Your task to perform on an android device: turn on improve location accuracy Image 0: 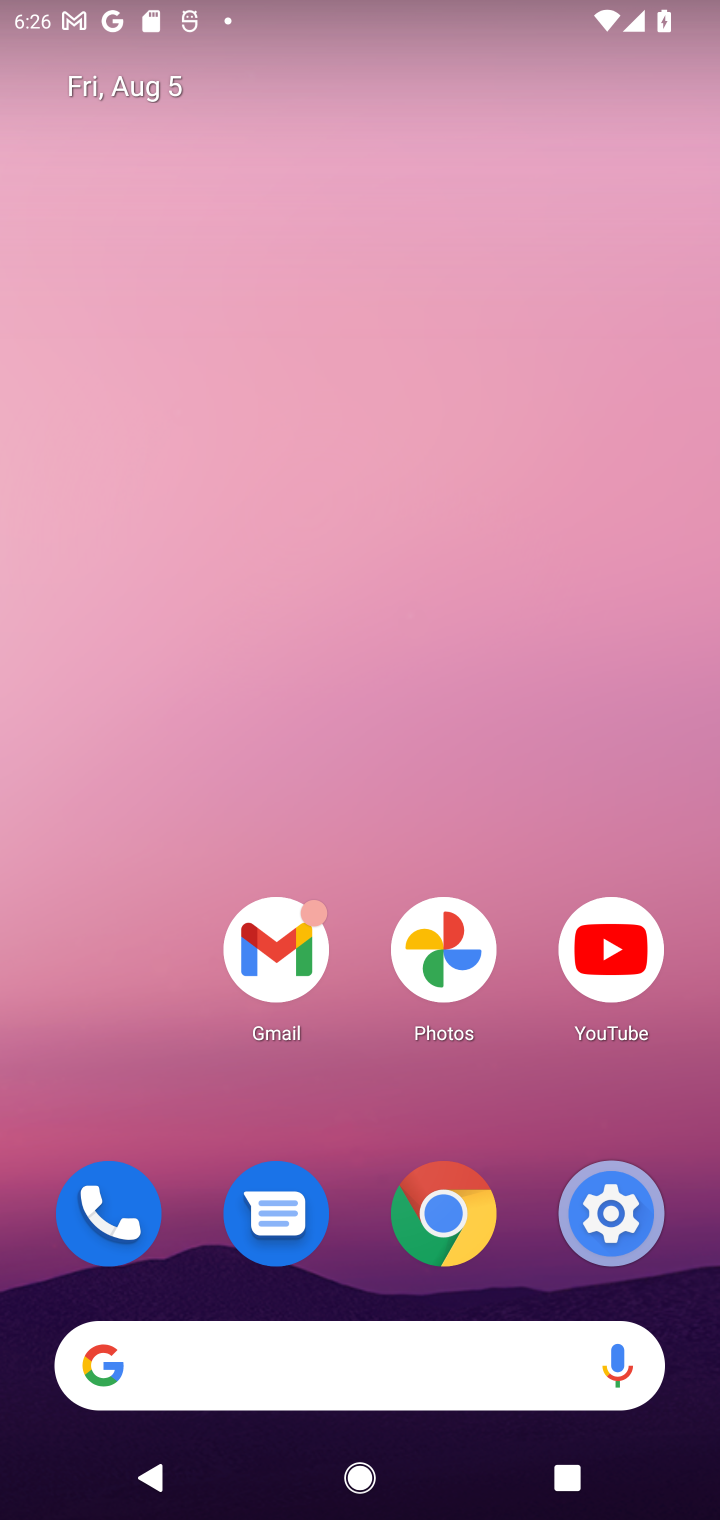
Step 0: click (601, 1240)
Your task to perform on an android device: turn on improve location accuracy Image 1: 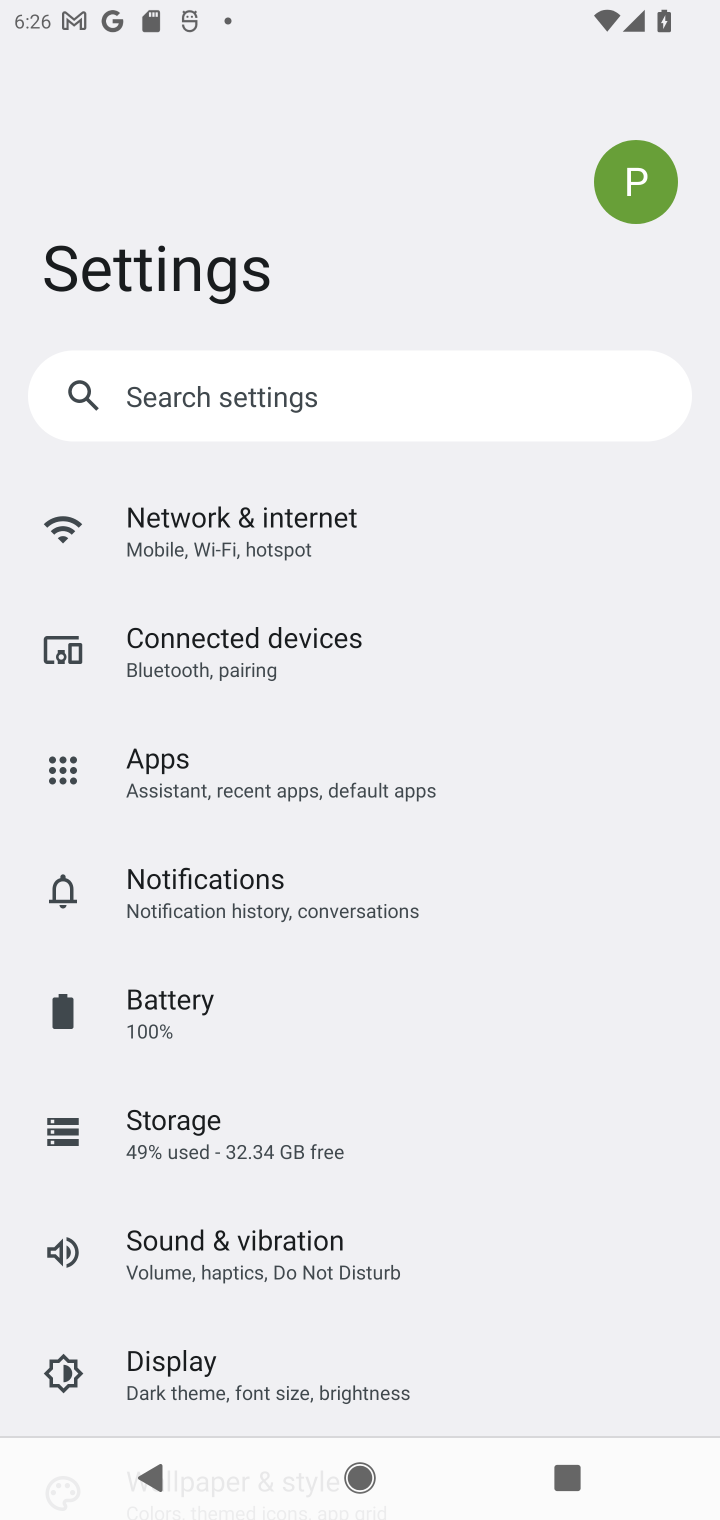
Step 1: task complete